Your task to perform on an android device: add a contact Image 0: 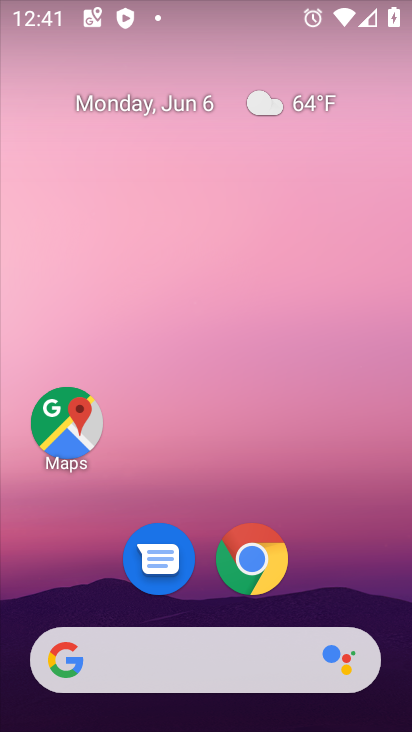
Step 0: click (193, 68)
Your task to perform on an android device: add a contact Image 1: 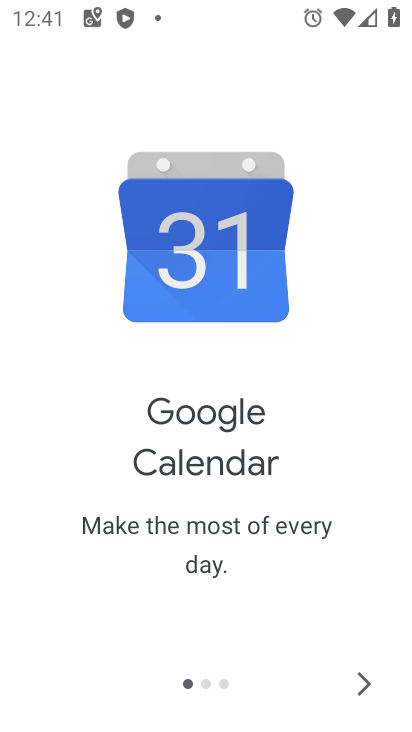
Step 1: press home button
Your task to perform on an android device: add a contact Image 2: 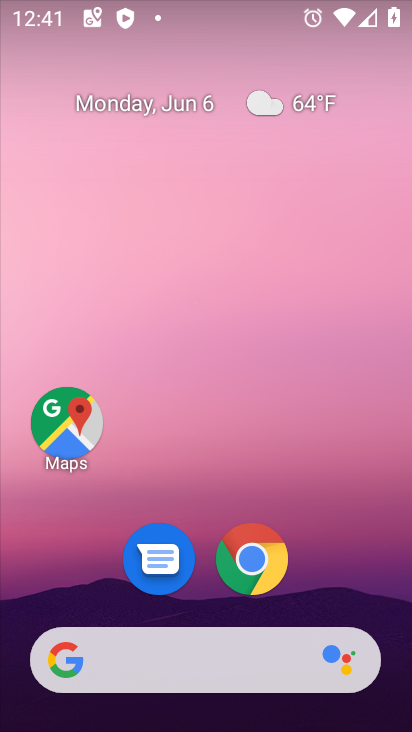
Step 2: drag from (241, 683) to (231, 165)
Your task to perform on an android device: add a contact Image 3: 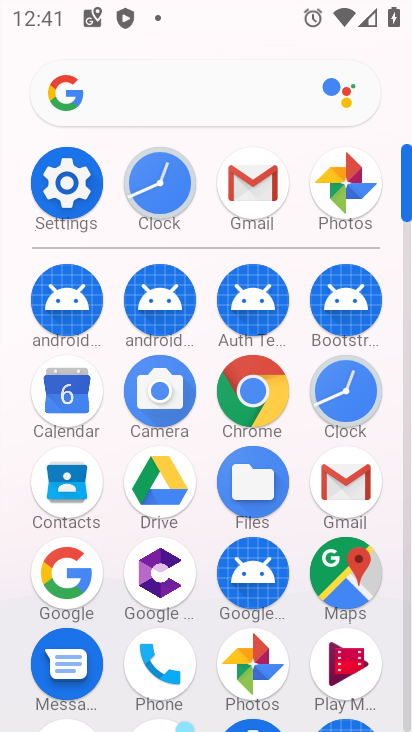
Step 3: click (176, 654)
Your task to perform on an android device: add a contact Image 4: 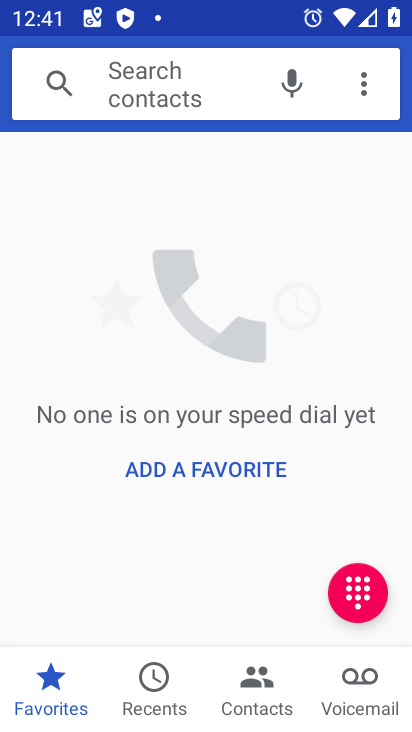
Step 4: click (266, 674)
Your task to perform on an android device: add a contact Image 5: 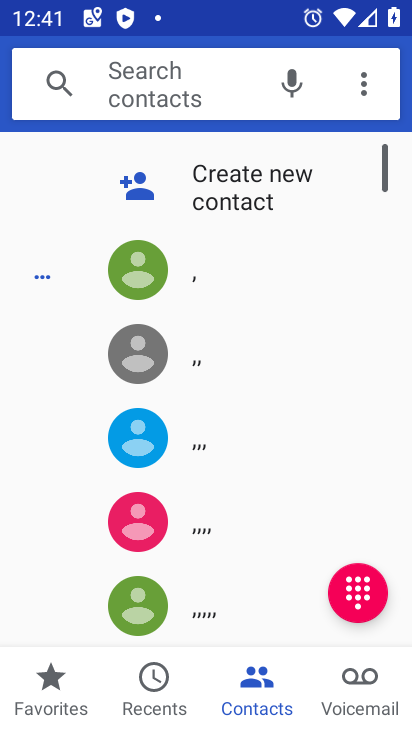
Step 5: click (264, 198)
Your task to perform on an android device: add a contact Image 6: 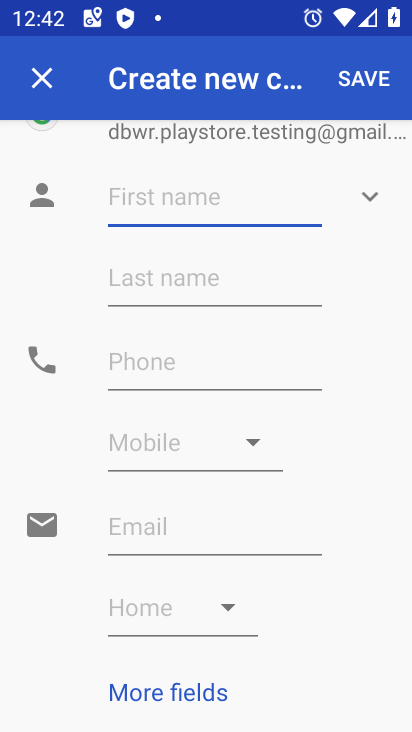
Step 6: click (180, 208)
Your task to perform on an android device: add a contact Image 7: 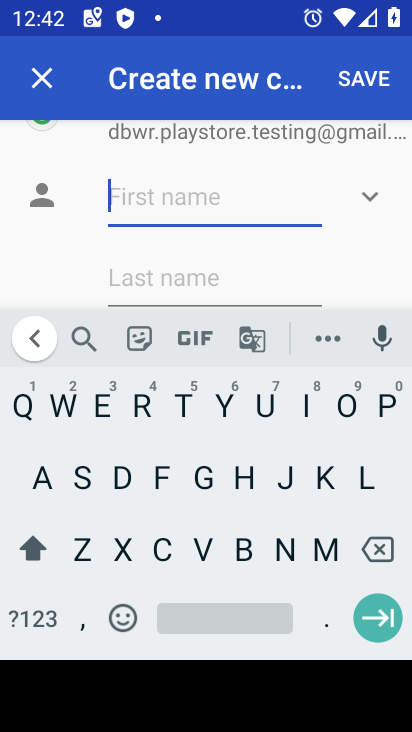
Step 7: click (142, 489)
Your task to perform on an android device: add a contact Image 8: 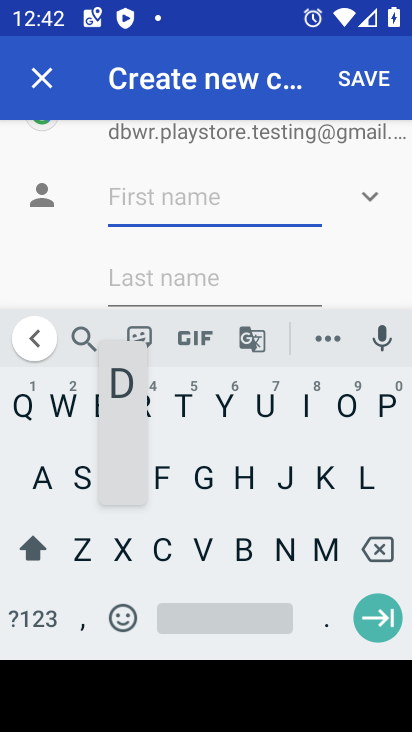
Step 8: click (272, 461)
Your task to perform on an android device: add a contact Image 9: 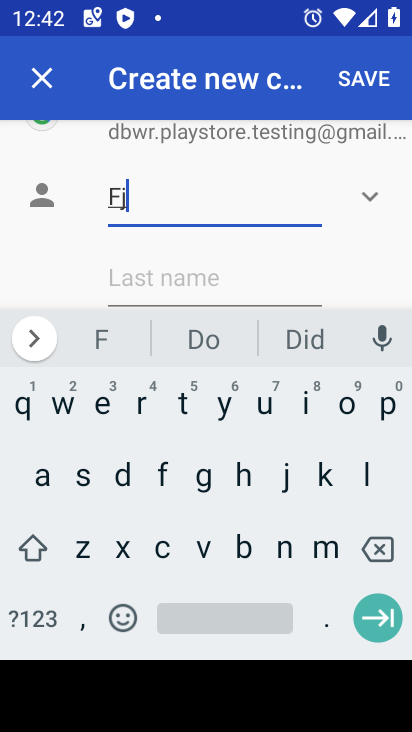
Step 9: drag from (222, 516) to (191, 541)
Your task to perform on an android device: add a contact Image 10: 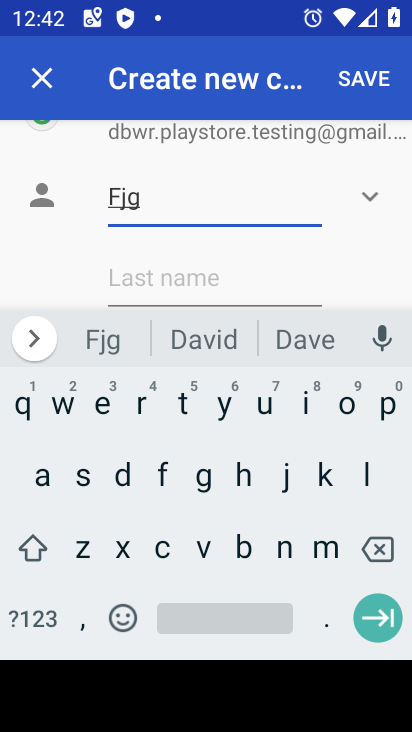
Step 10: drag from (169, 289) to (174, 190)
Your task to perform on an android device: add a contact Image 11: 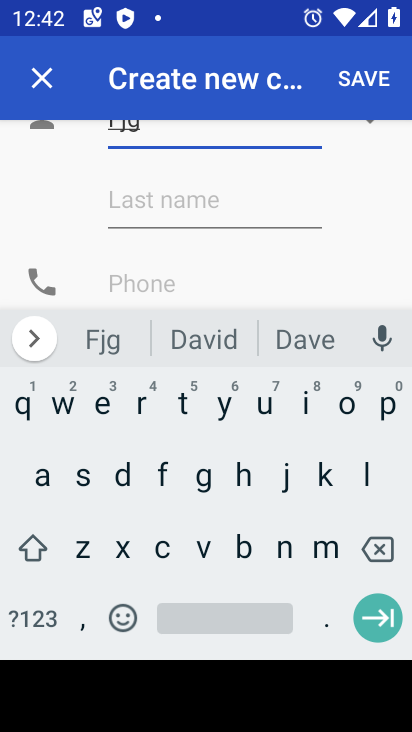
Step 11: click (149, 275)
Your task to perform on an android device: add a contact Image 12: 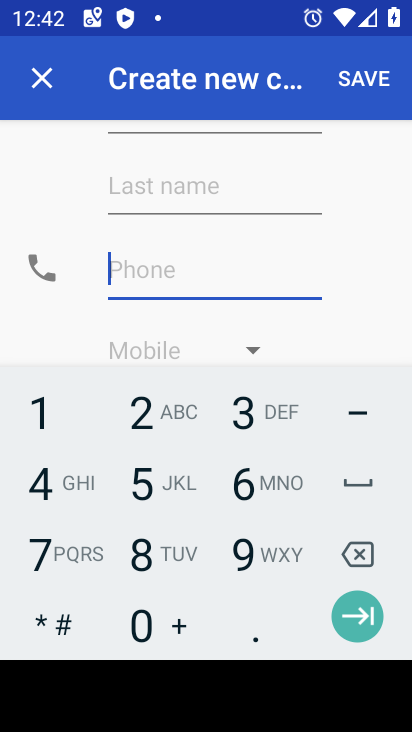
Step 12: click (150, 455)
Your task to perform on an android device: add a contact Image 13: 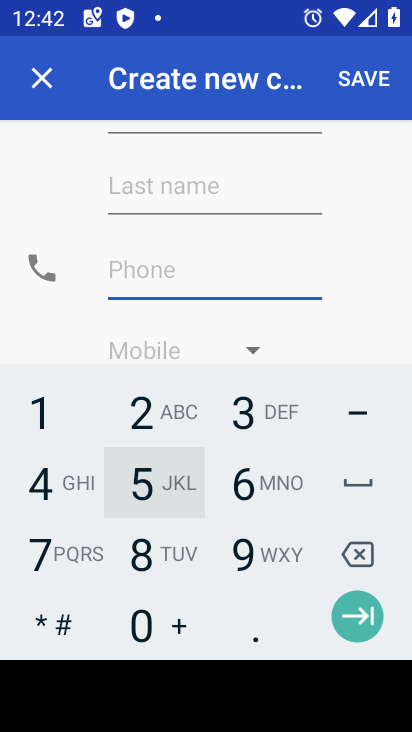
Step 13: click (107, 518)
Your task to perform on an android device: add a contact Image 14: 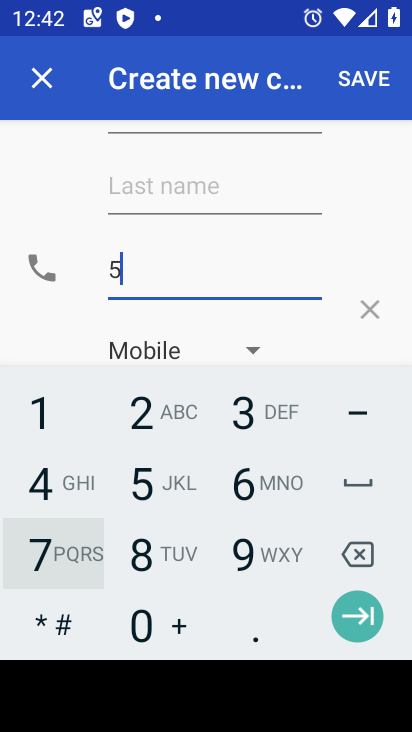
Step 14: click (65, 504)
Your task to perform on an android device: add a contact Image 15: 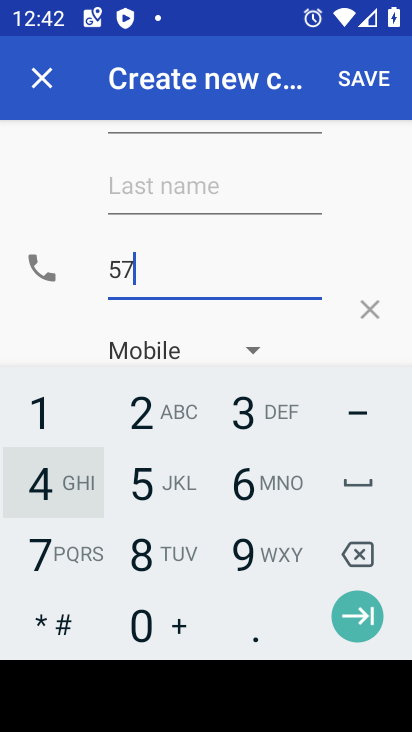
Step 15: click (298, 468)
Your task to perform on an android device: add a contact Image 16: 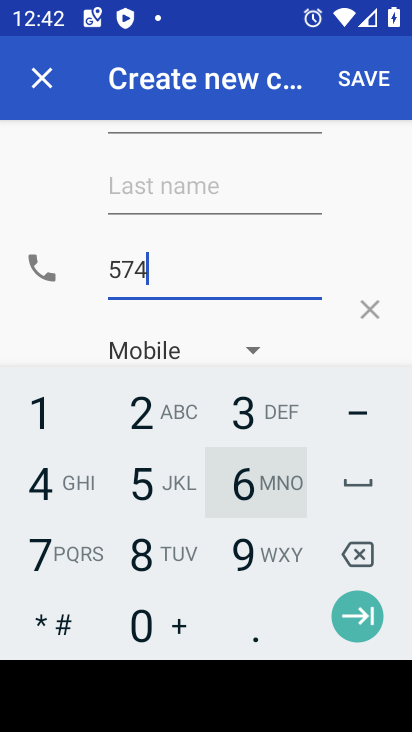
Step 16: click (250, 551)
Your task to perform on an android device: add a contact Image 17: 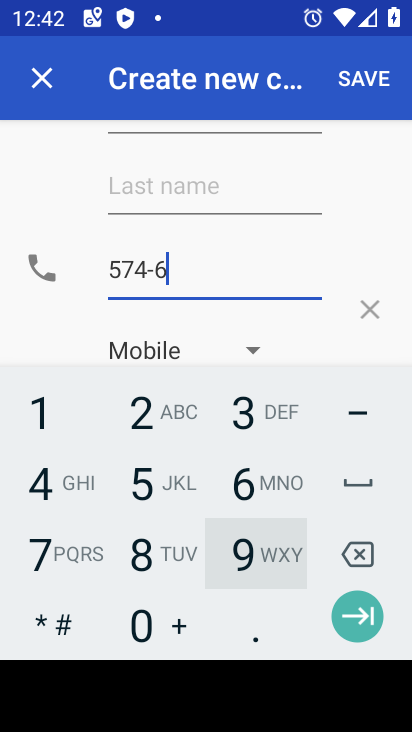
Step 17: click (126, 527)
Your task to perform on an android device: add a contact Image 18: 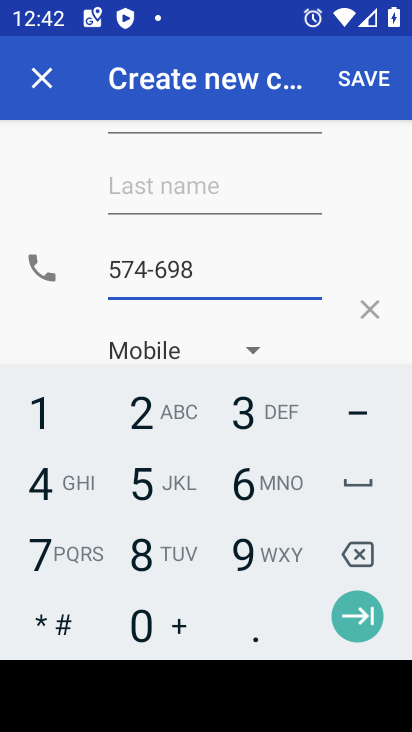
Step 18: click (230, 472)
Your task to perform on an android device: add a contact Image 19: 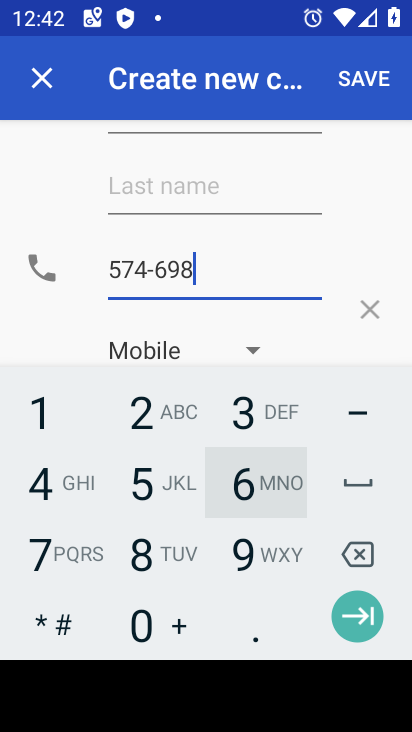
Step 19: click (101, 511)
Your task to perform on an android device: add a contact Image 20: 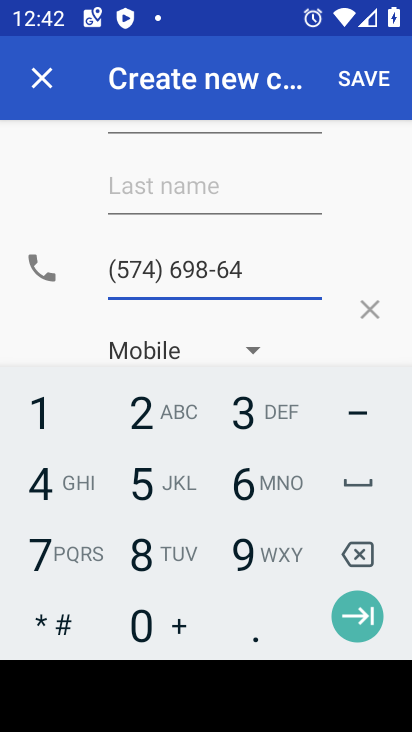
Step 20: click (347, 74)
Your task to perform on an android device: add a contact Image 21: 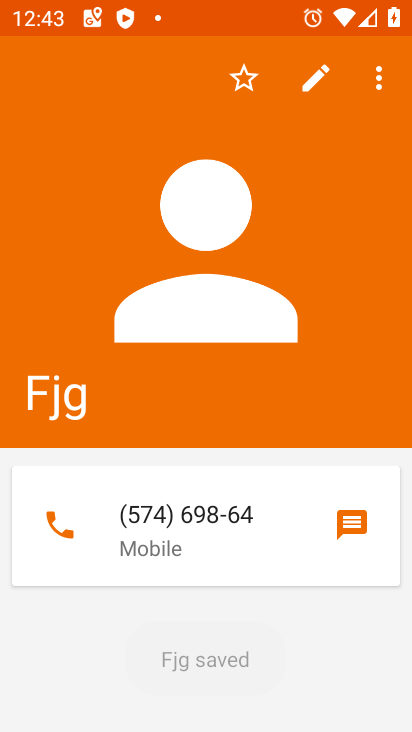
Step 21: task complete